Your task to perform on an android device: Open Chrome and go to settings Image 0: 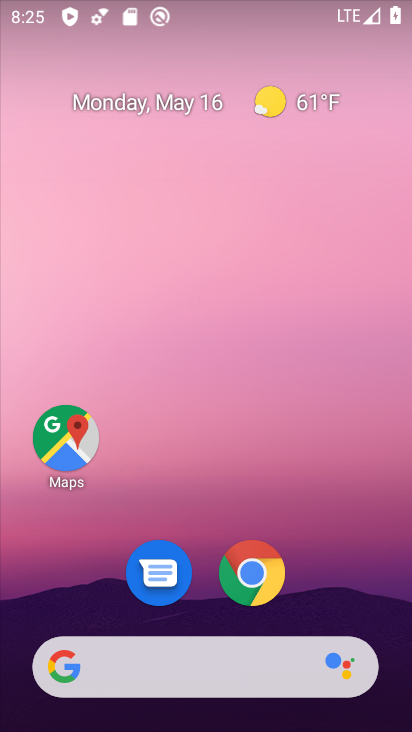
Step 0: click (262, 567)
Your task to perform on an android device: Open Chrome and go to settings Image 1: 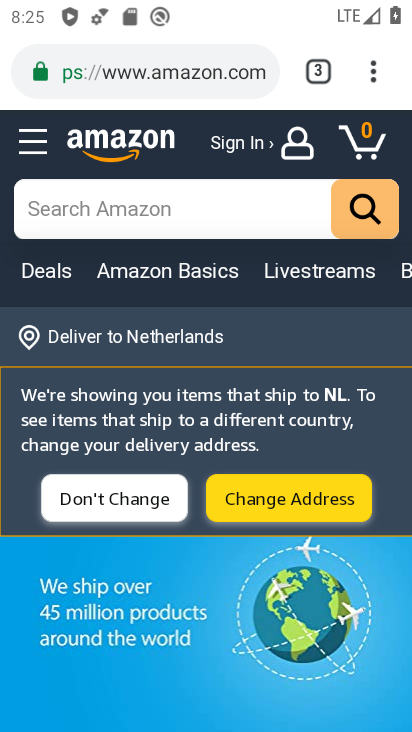
Step 1: click (373, 79)
Your task to perform on an android device: Open Chrome and go to settings Image 2: 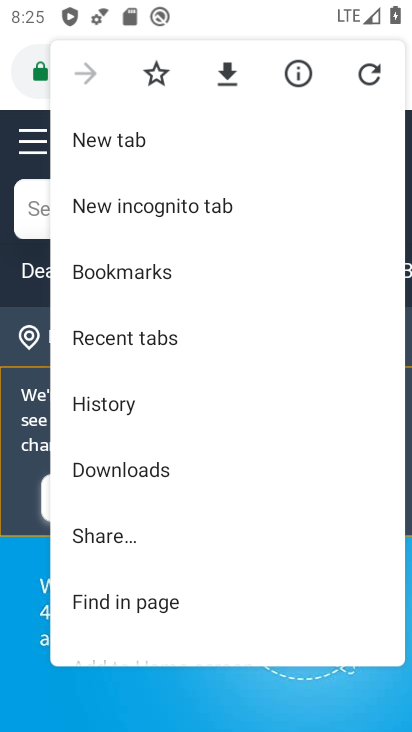
Step 2: drag from (117, 577) to (122, 231)
Your task to perform on an android device: Open Chrome and go to settings Image 3: 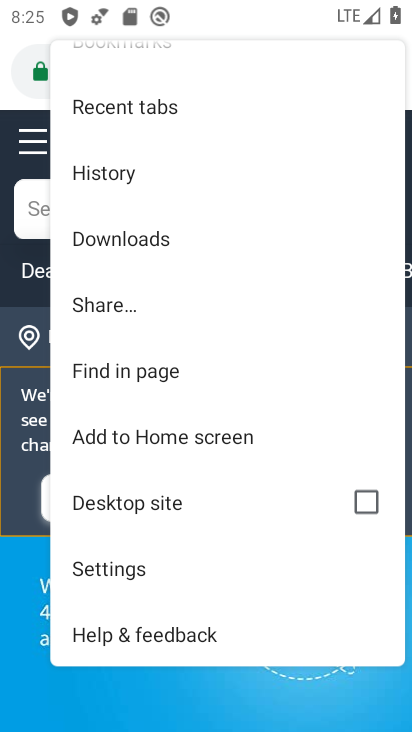
Step 3: click (93, 565)
Your task to perform on an android device: Open Chrome and go to settings Image 4: 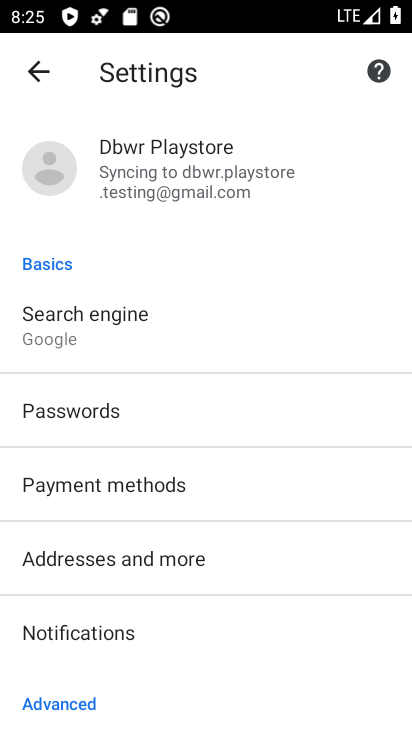
Step 4: task complete